Your task to perform on an android device: toggle javascript in the chrome app Image 0: 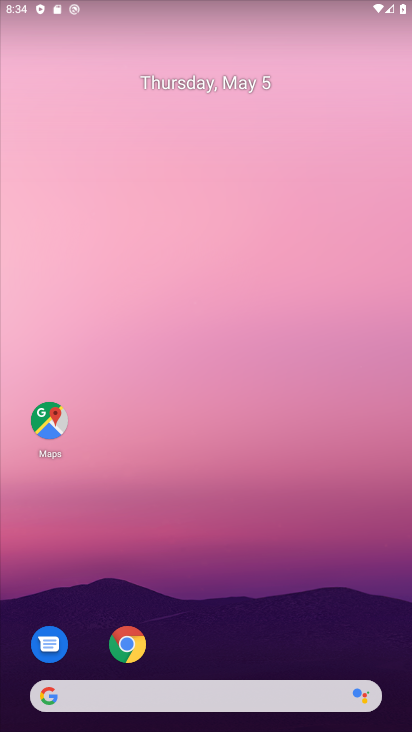
Step 0: drag from (252, 601) to (279, 30)
Your task to perform on an android device: toggle javascript in the chrome app Image 1: 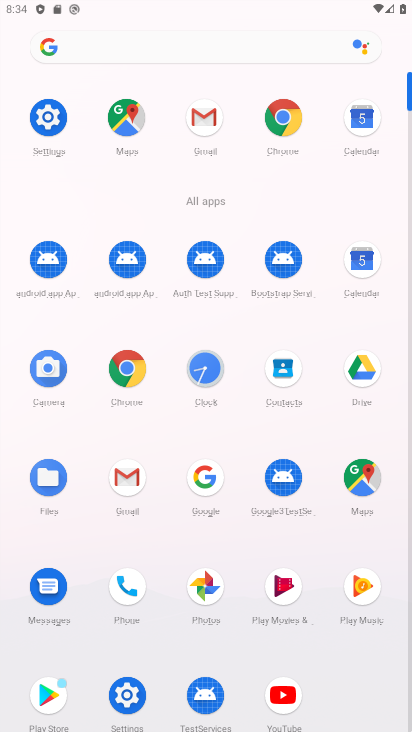
Step 1: click (272, 118)
Your task to perform on an android device: toggle javascript in the chrome app Image 2: 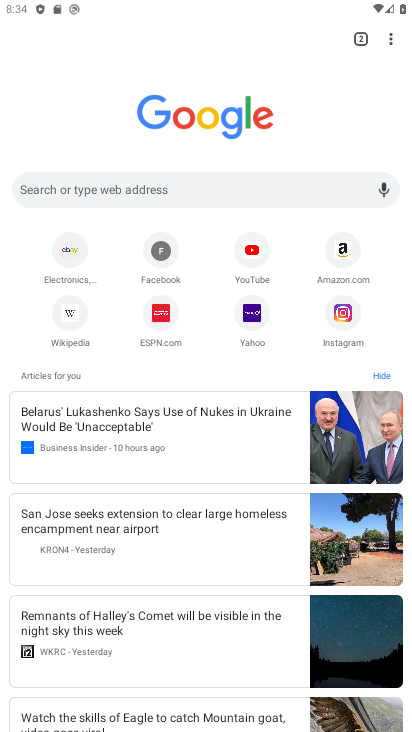
Step 2: drag from (387, 39) to (241, 373)
Your task to perform on an android device: toggle javascript in the chrome app Image 3: 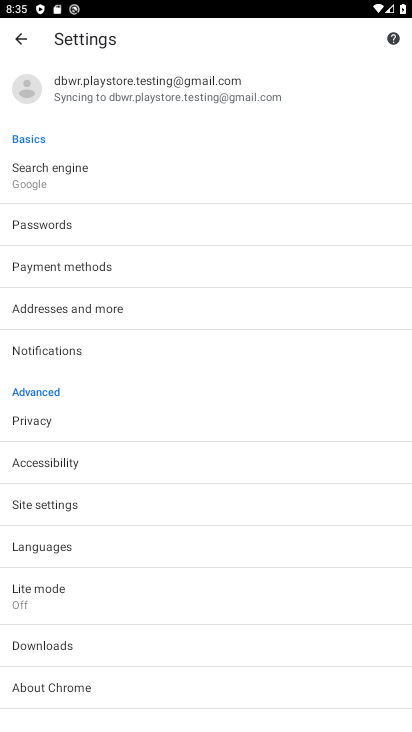
Step 3: click (39, 498)
Your task to perform on an android device: toggle javascript in the chrome app Image 4: 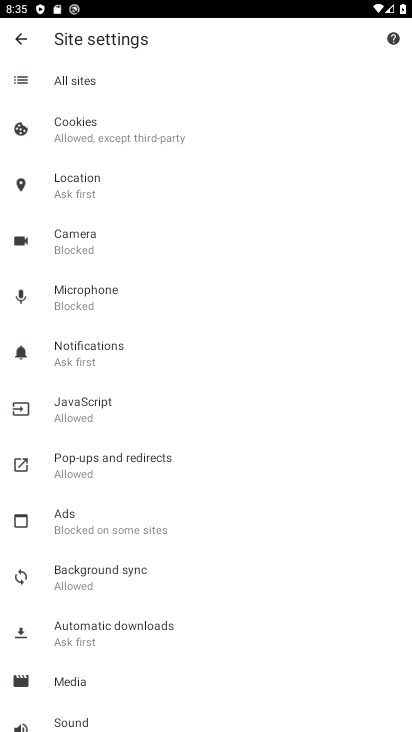
Step 4: click (64, 403)
Your task to perform on an android device: toggle javascript in the chrome app Image 5: 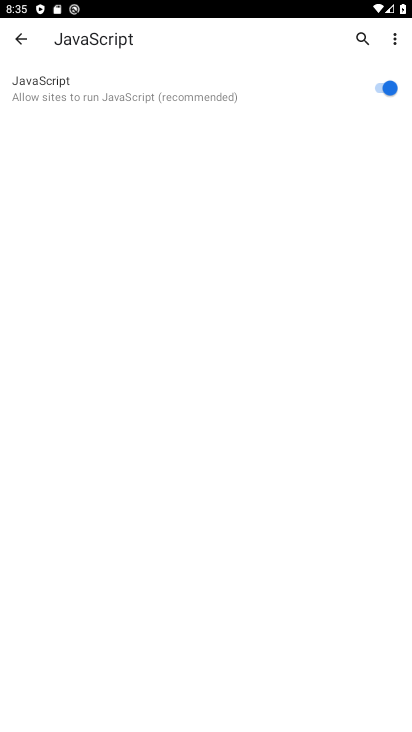
Step 5: click (375, 83)
Your task to perform on an android device: toggle javascript in the chrome app Image 6: 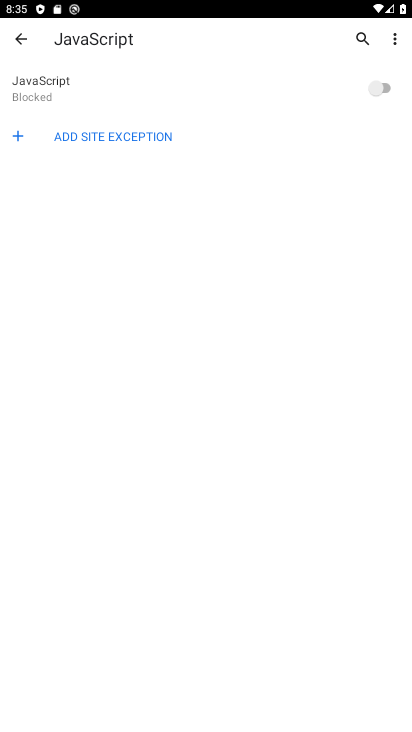
Step 6: task complete